Your task to perform on an android device: Go to location settings Image 0: 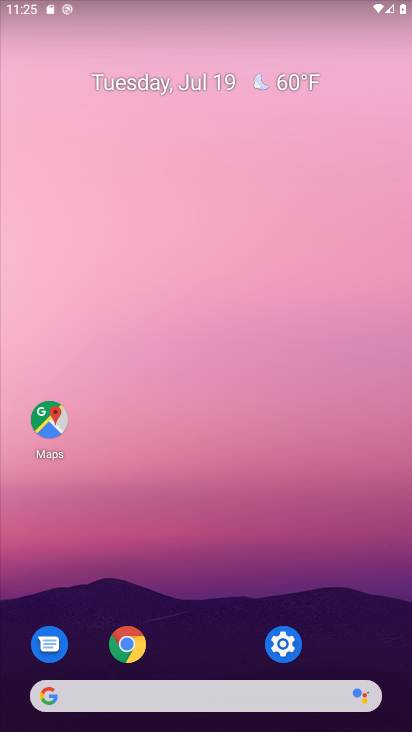
Step 0: click (292, 634)
Your task to perform on an android device: Go to location settings Image 1: 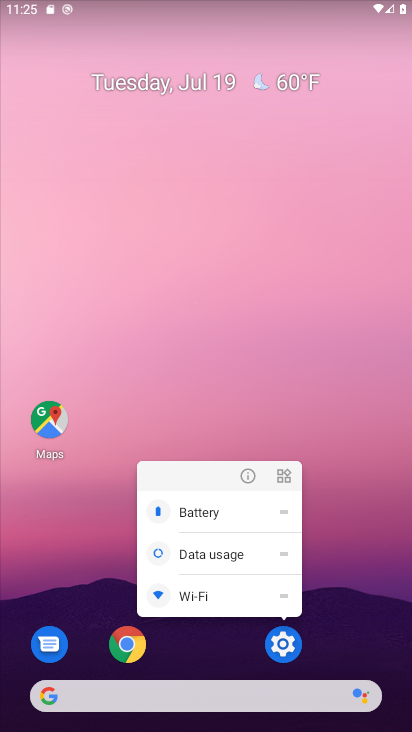
Step 1: click (276, 649)
Your task to perform on an android device: Go to location settings Image 2: 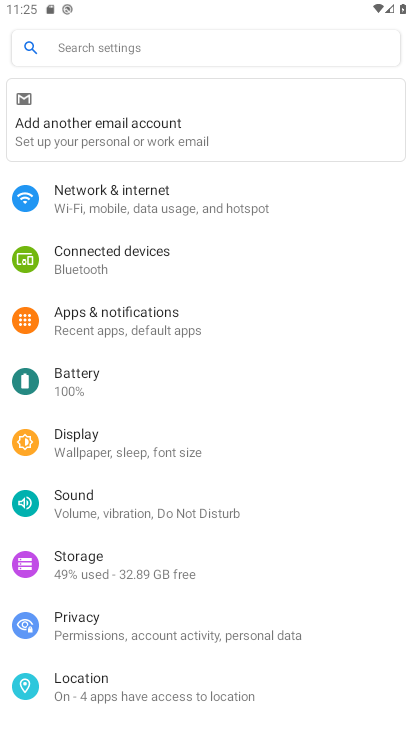
Step 2: click (102, 676)
Your task to perform on an android device: Go to location settings Image 3: 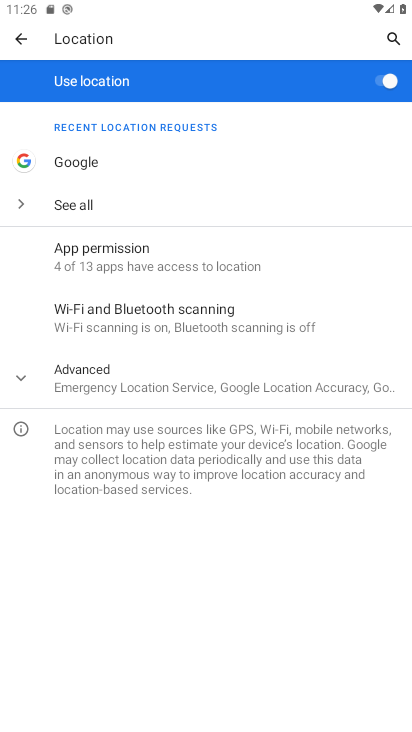
Step 3: task complete